Your task to perform on an android device: When is my next appointment? Image 0: 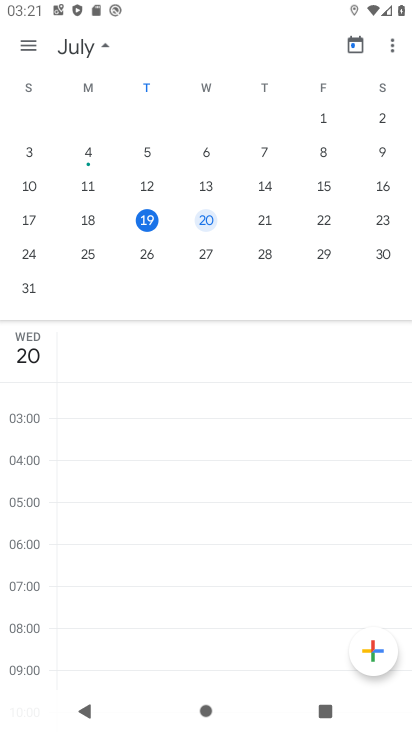
Step 0: press home button
Your task to perform on an android device: When is my next appointment? Image 1: 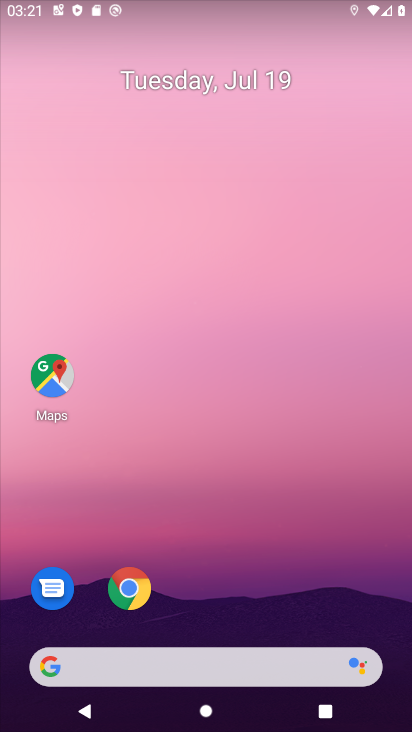
Step 1: drag from (224, 589) to (193, 128)
Your task to perform on an android device: When is my next appointment? Image 2: 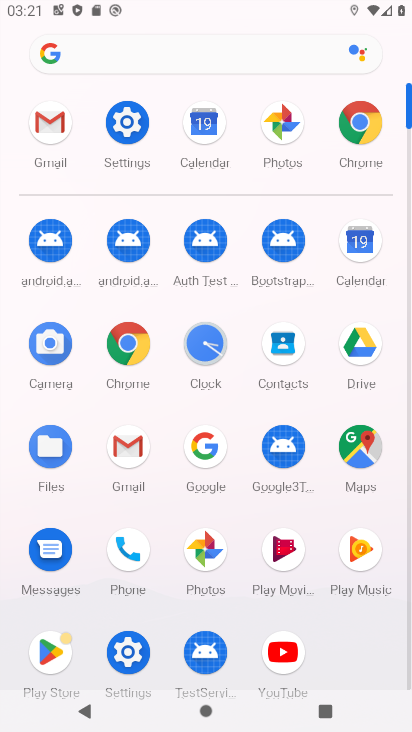
Step 2: click (360, 236)
Your task to perform on an android device: When is my next appointment? Image 3: 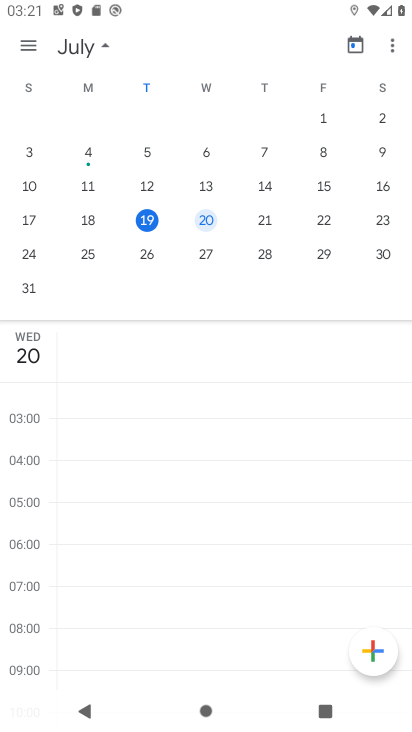
Step 3: click (149, 222)
Your task to perform on an android device: When is my next appointment? Image 4: 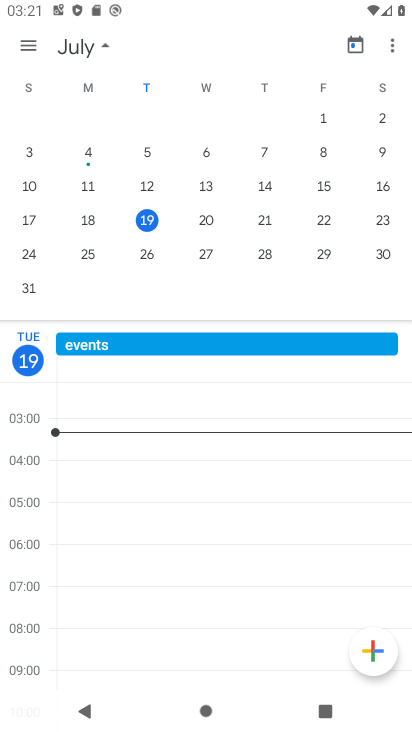
Step 4: task complete